Your task to perform on an android device: set default search engine in the chrome app Image 0: 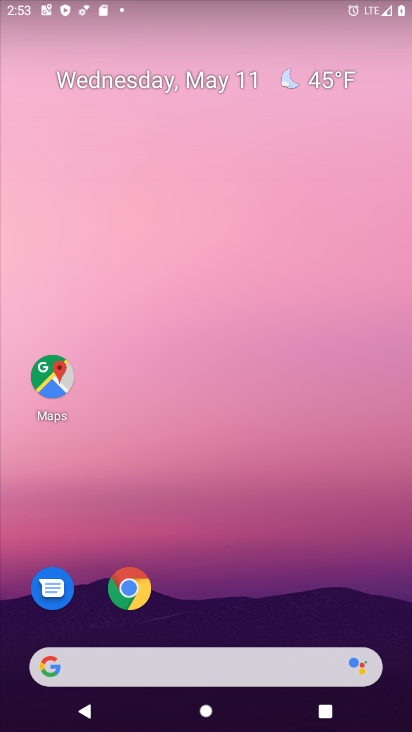
Step 0: click (141, 601)
Your task to perform on an android device: set default search engine in the chrome app Image 1: 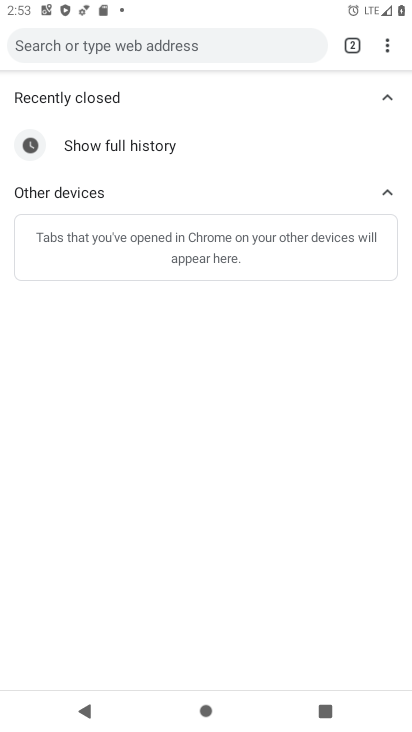
Step 1: press home button
Your task to perform on an android device: set default search engine in the chrome app Image 2: 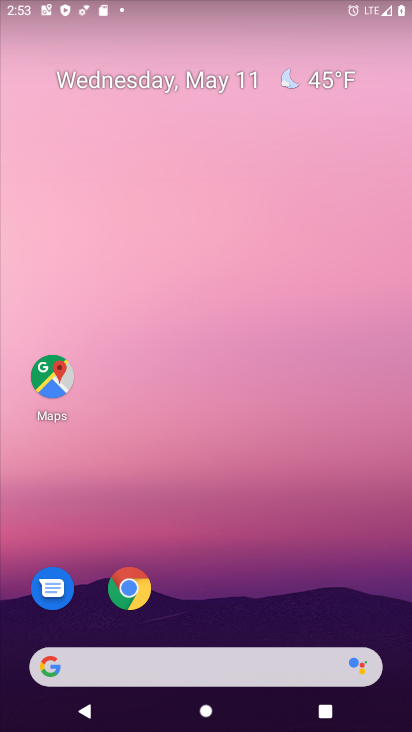
Step 2: click (140, 592)
Your task to perform on an android device: set default search engine in the chrome app Image 3: 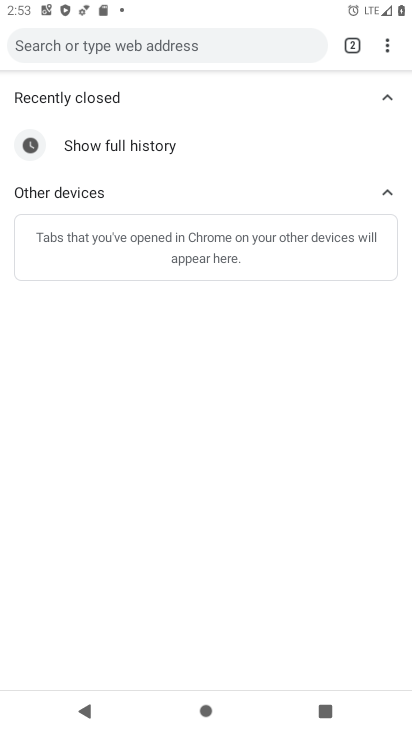
Step 3: click (387, 45)
Your task to perform on an android device: set default search engine in the chrome app Image 4: 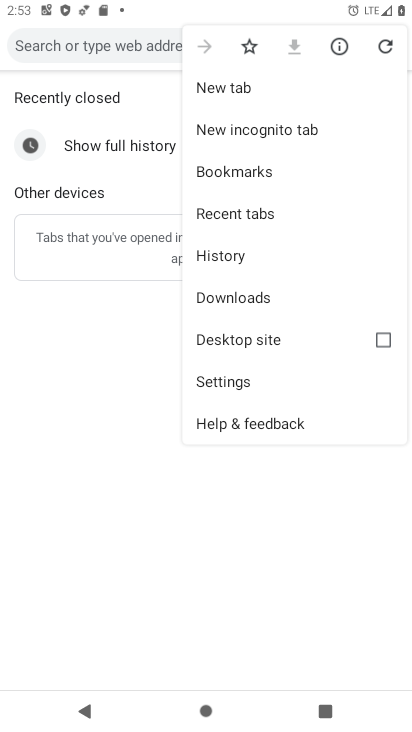
Step 4: click (239, 374)
Your task to perform on an android device: set default search engine in the chrome app Image 5: 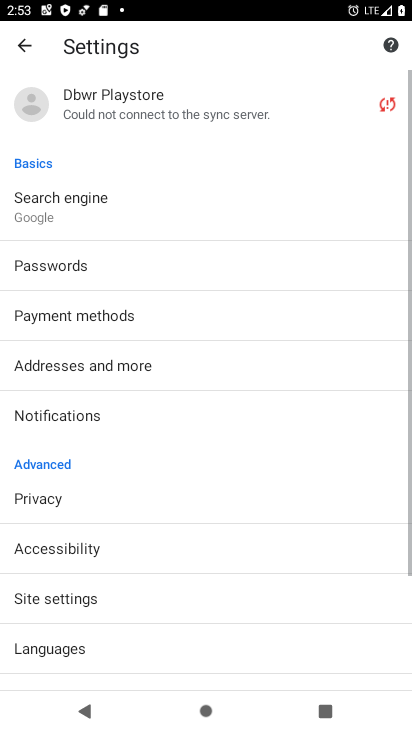
Step 5: click (75, 219)
Your task to perform on an android device: set default search engine in the chrome app Image 6: 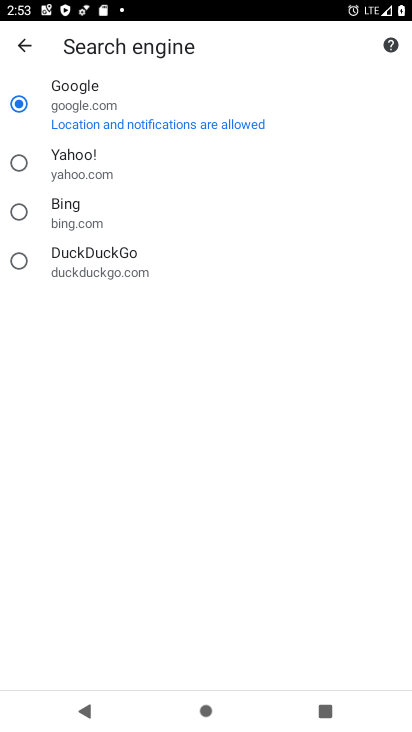
Step 6: click (80, 225)
Your task to perform on an android device: set default search engine in the chrome app Image 7: 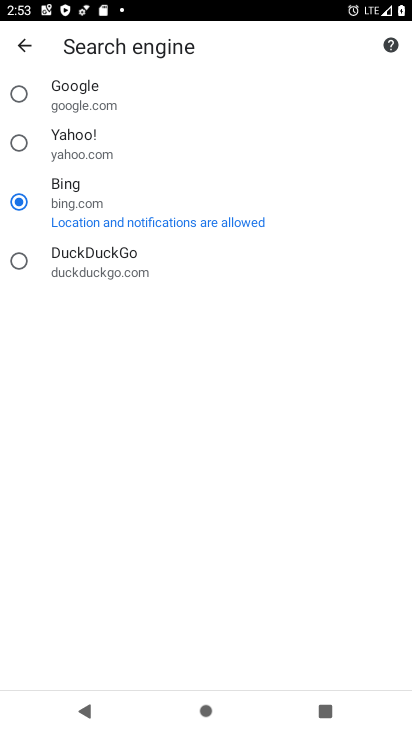
Step 7: task complete